Your task to perform on an android device: Open the phone app and click the voicemail tab. Image 0: 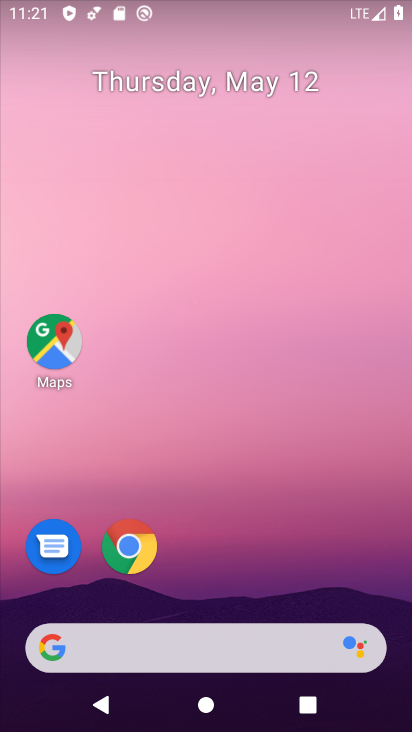
Step 0: drag from (271, 572) to (271, 89)
Your task to perform on an android device: Open the phone app and click the voicemail tab. Image 1: 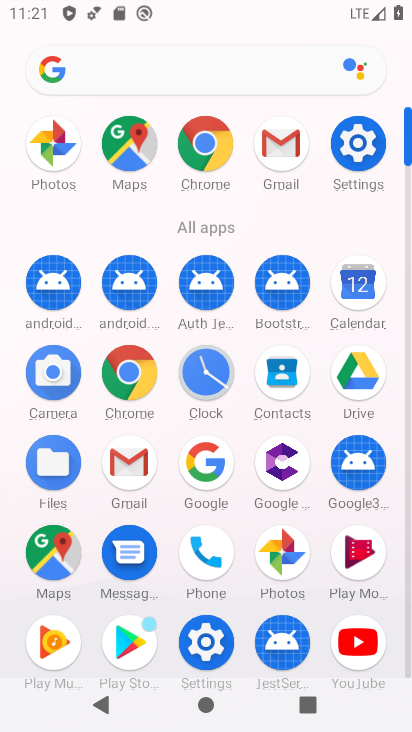
Step 1: click (217, 549)
Your task to perform on an android device: Open the phone app and click the voicemail tab. Image 2: 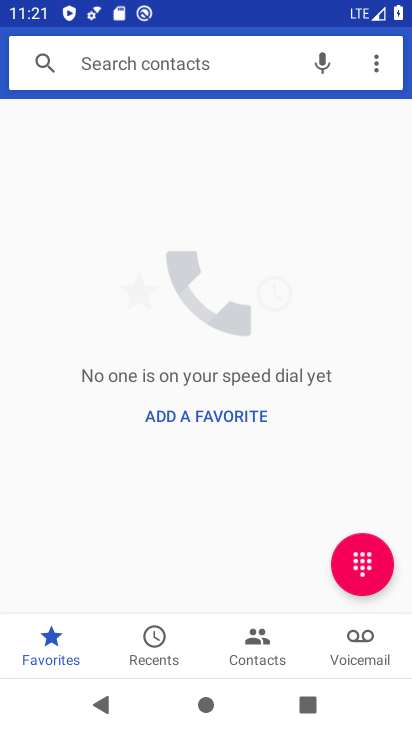
Step 2: click (366, 656)
Your task to perform on an android device: Open the phone app and click the voicemail tab. Image 3: 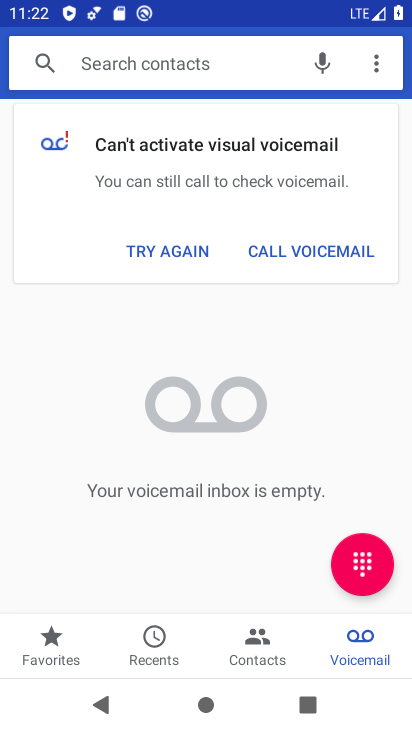
Step 3: task complete